Your task to perform on an android device: Open Chrome and go to the settings page Image 0: 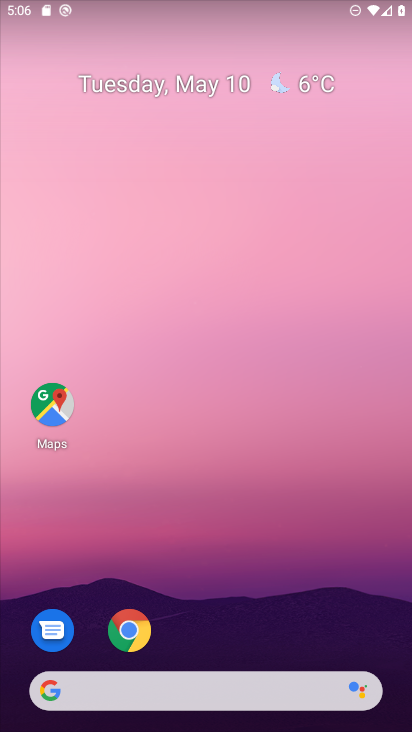
Step 0: drag from (273, 563) to (243, 106)
Your task to perform on an android device: Open Chrome and go to the settings page Image 1: 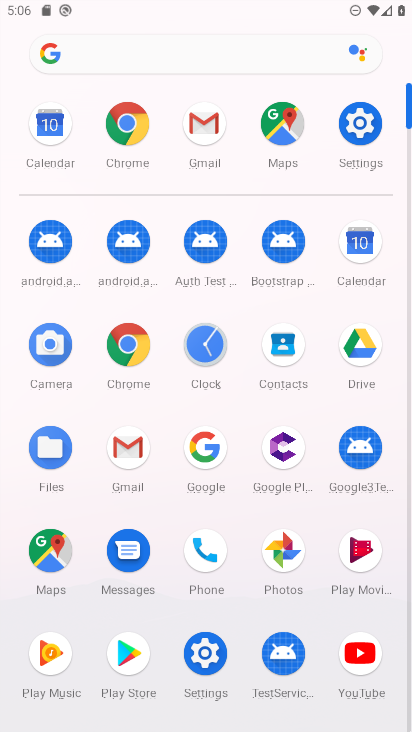
Step 1: click (122, 348)
Your task to perform on an android device: Open Chrome and go to the settings page Image 2: 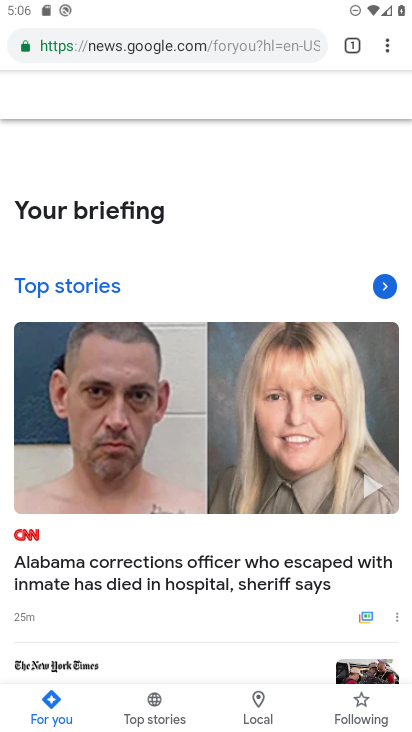
Step 2: task complete